Your task to perform on an android device: Go to settings Image 0: 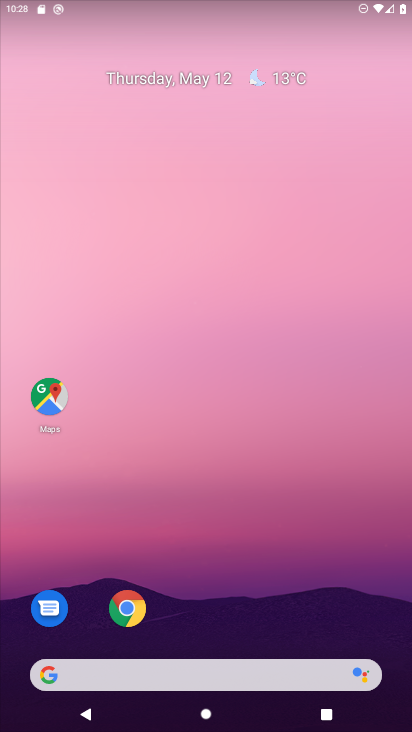
Step 0: drag from (294, 596) to (299, 83)
Your task to perform on an android device: Go to settings Image 1: 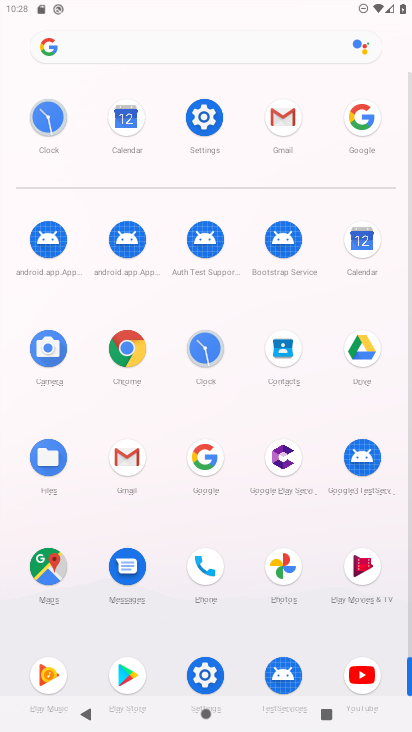
Step 1: click (202, 118)
Your task to perform on an android device: Go to settings Image 2: 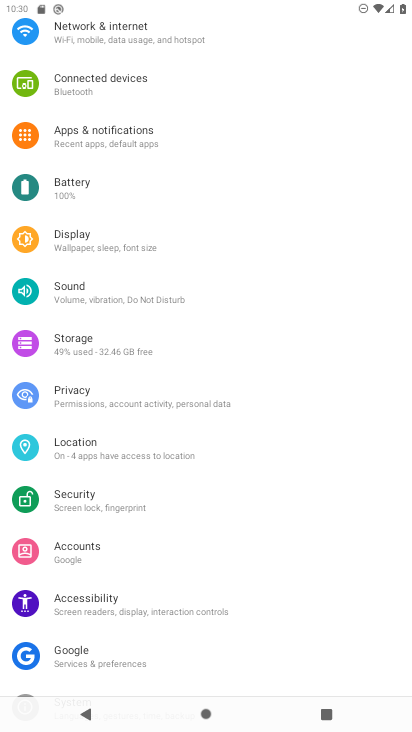
Step 2: task complete